Your task to perform on an android device: Open settings Image 0: 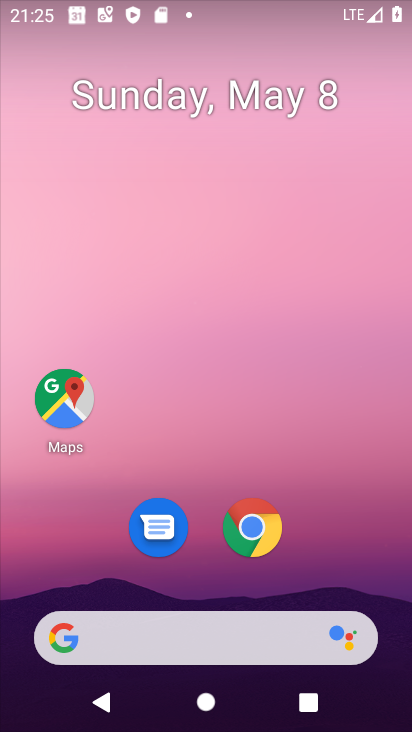
Step 0: drag from (204, 571) to (211, 38)
Your task to perform on an android device: Open settings Image 1: 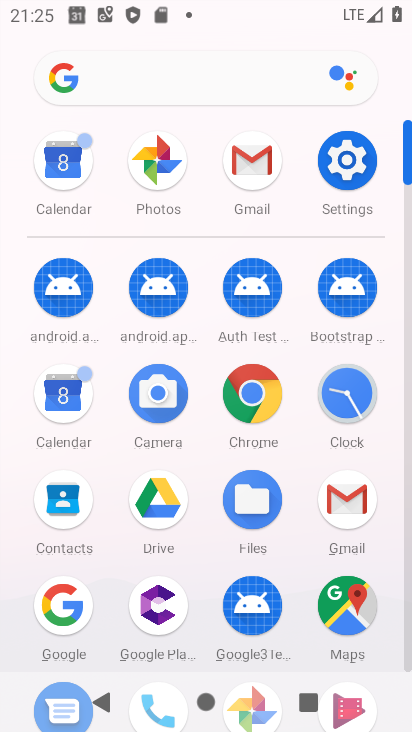
Step 1: click (349, 159)
Your task to perform on an android device: Open settings Image 2: 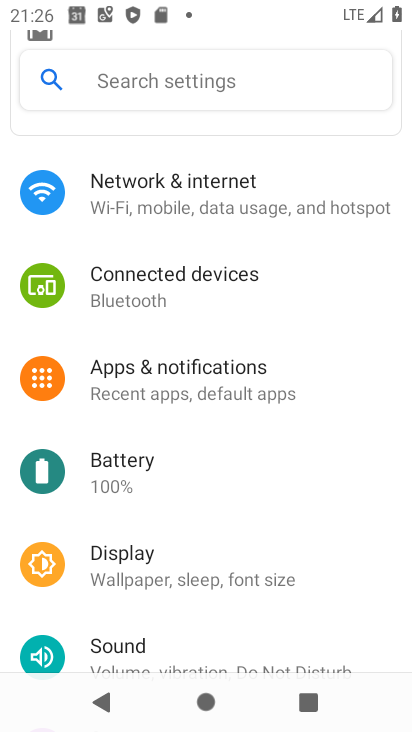
Step 2: task complete